Your task to perform on an android device: see sites visited before in the chrome app Image 0: 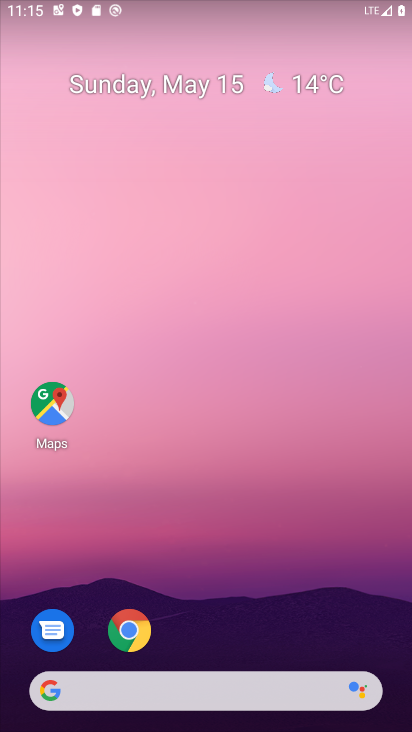
Step 0: click (123, 632)
Your task to perform on an android device: see sites visited before in the chrome app Image 1: 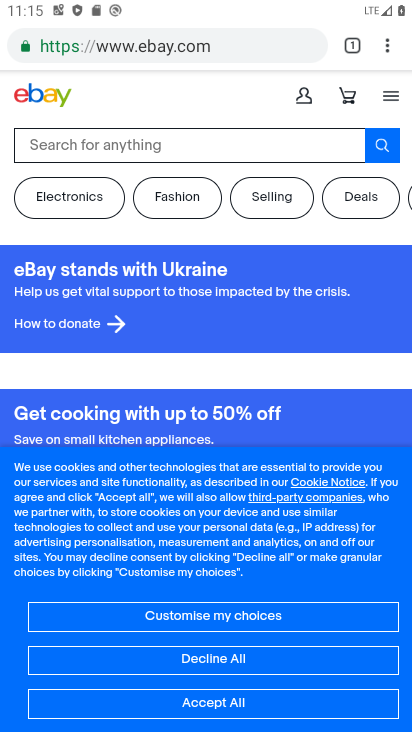
Step 1: click (380, 51)
Your task to perform on an android device: see sites visited before in the chrome app Image 2: 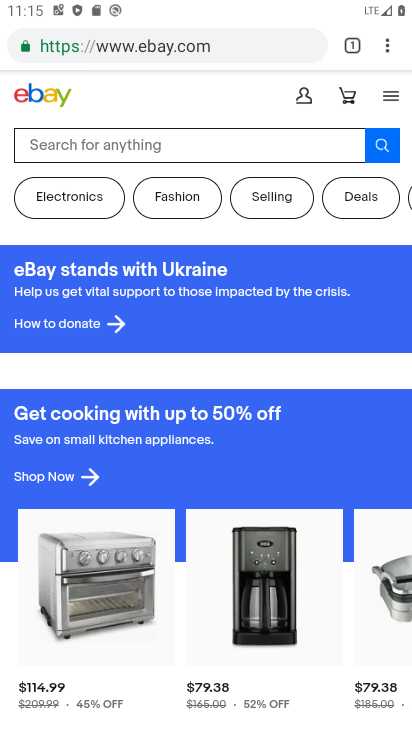
Step 2: click (384, 45)
Your task to perform on an android device: see sites visited before in the chrome app Image 3: 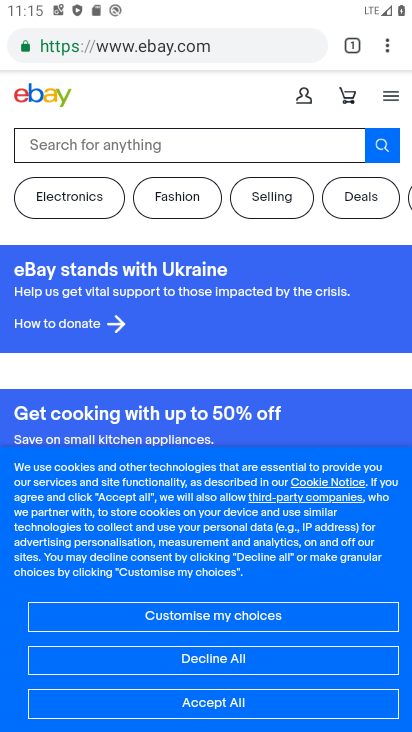
Step 3: click (383, 49)
Your task to perform on an android device: see sites visited before in the chrome app Image 4: 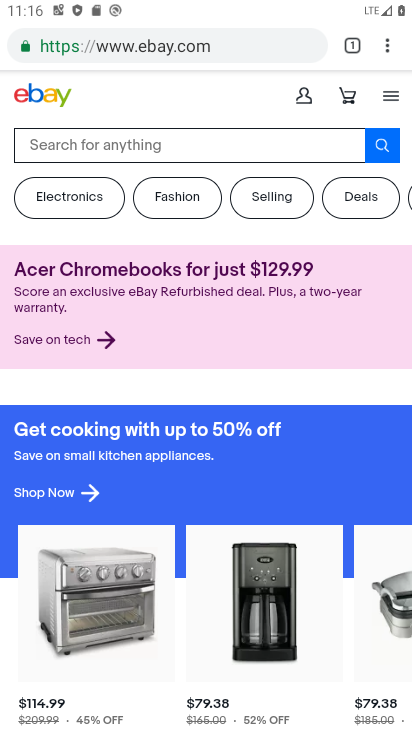
Step 4: task complete